Your task to perform on an android device: turn off sleep mode Image 0: 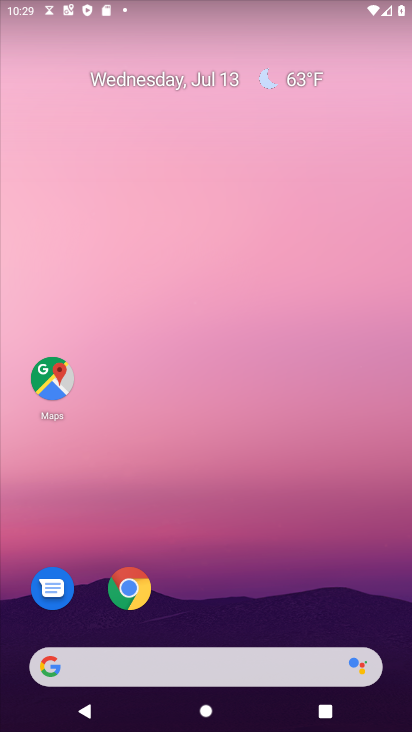
Step 0: drag from (38, 515) to (191, 33)
Your task to perform on an android device: turn off sleep mode Image 1: 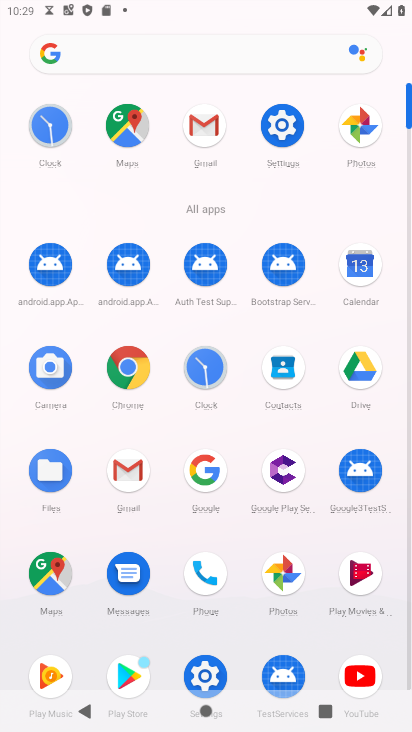
Step 1: click (295, 129)
Your task to perform on an android device: turn off sleep mode Image 2: 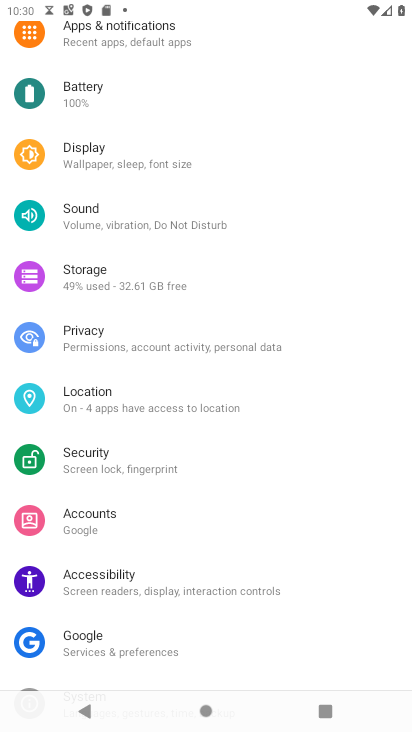
Step 2: task complete